Your task to perform on an android device: Open Reddit.com Image 0: 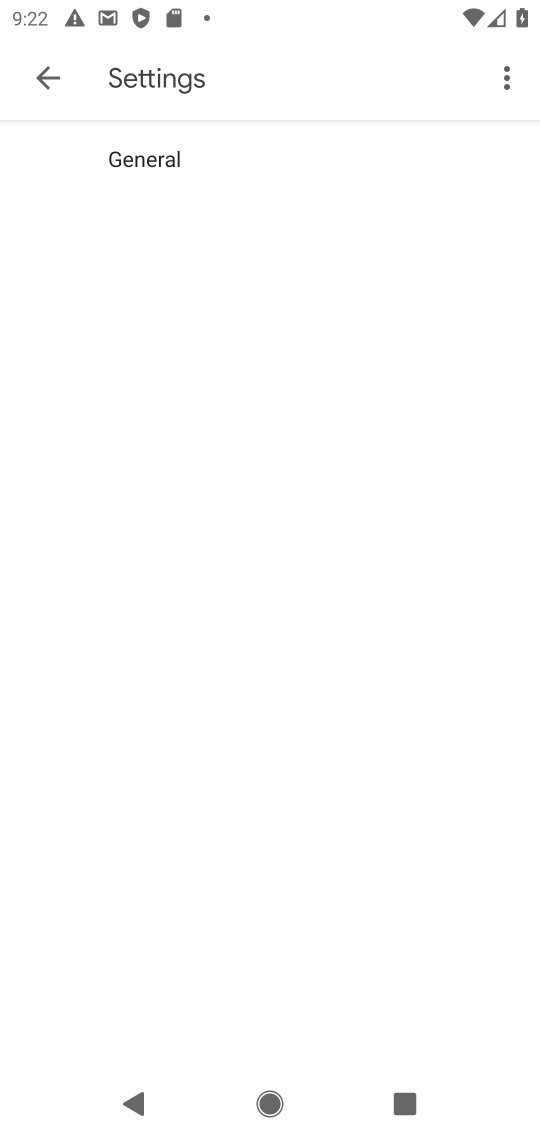
Step 0: press home button
Your task to perform on an android device: Open Reddit.com Image 1: 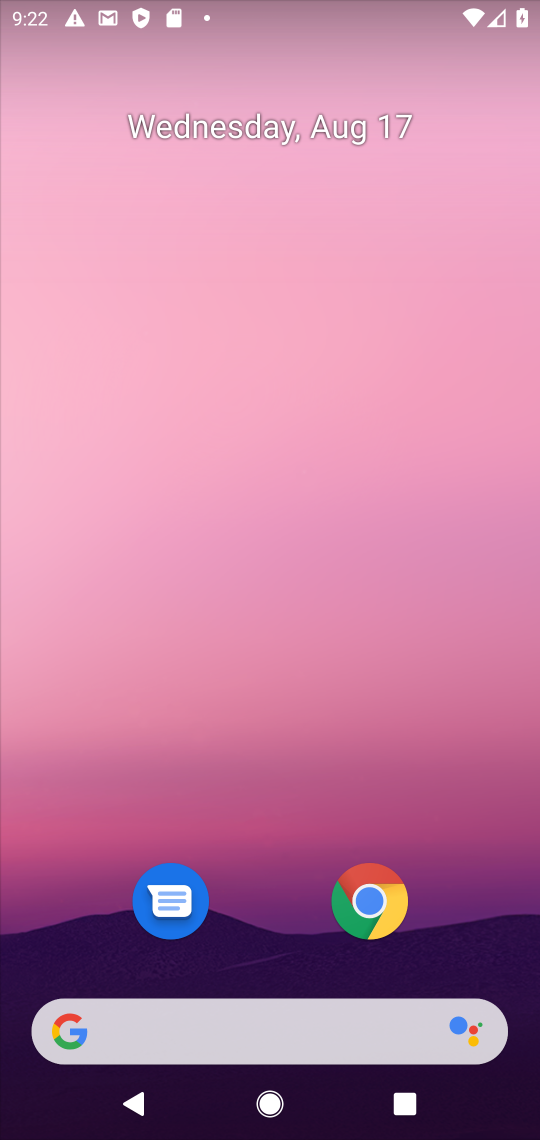
Step 1: drag from (262, 961) to (277, 173)
Your task to perform on an android device: Open Reddit.com Image 2: 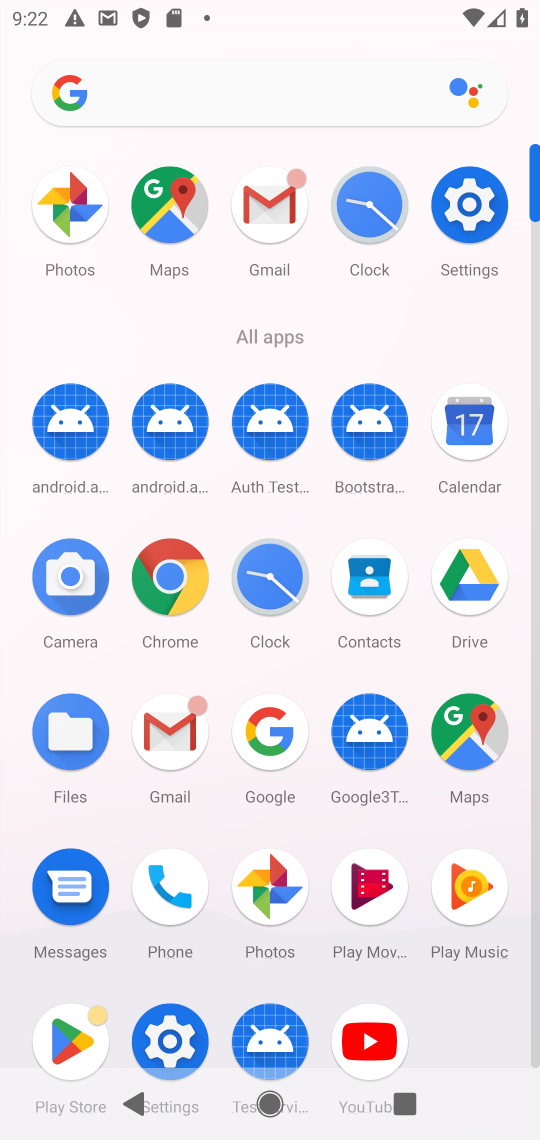
Step 2: click (171, 584)
Your task to perform on an android device: Open Reddit.com Image 3: 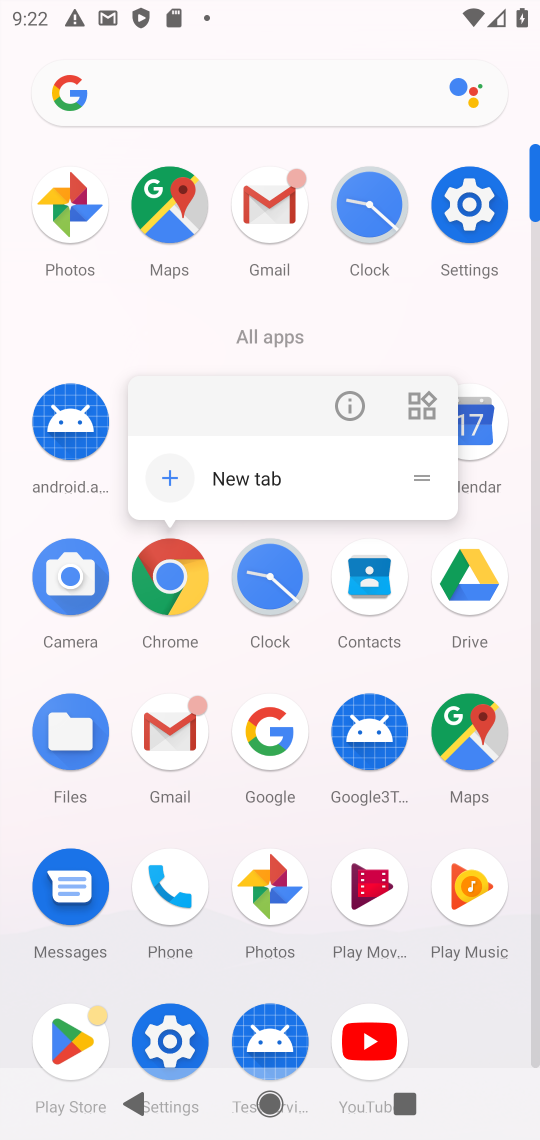
Step 3: click (171, 584)
Your task to perform on an android device: Open Reddit.com Image 4: 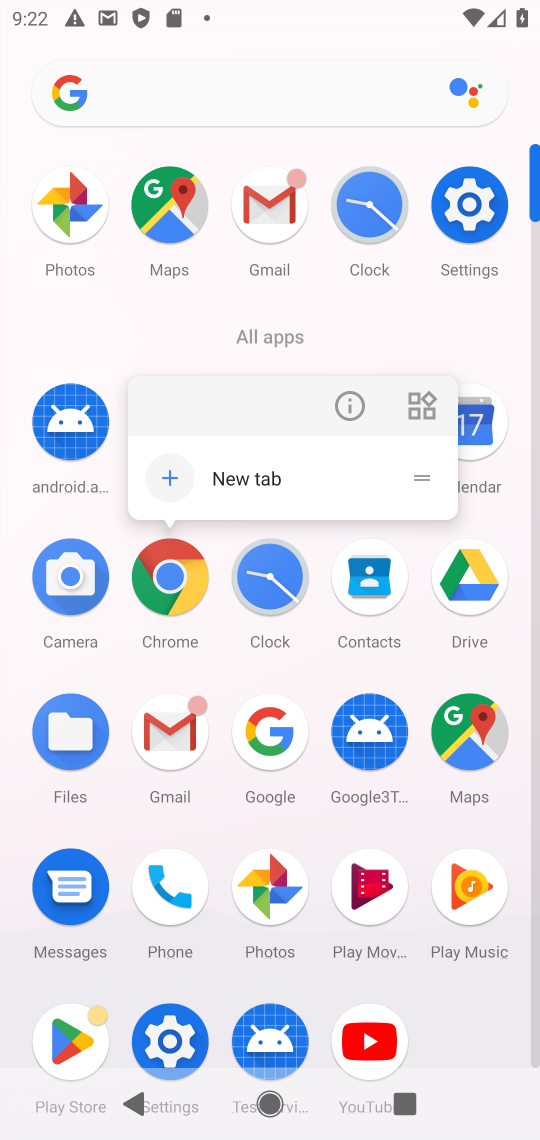
Step 4: click (164, 596)
Your task to perform on an android device: Open Reddit.com Image 5: 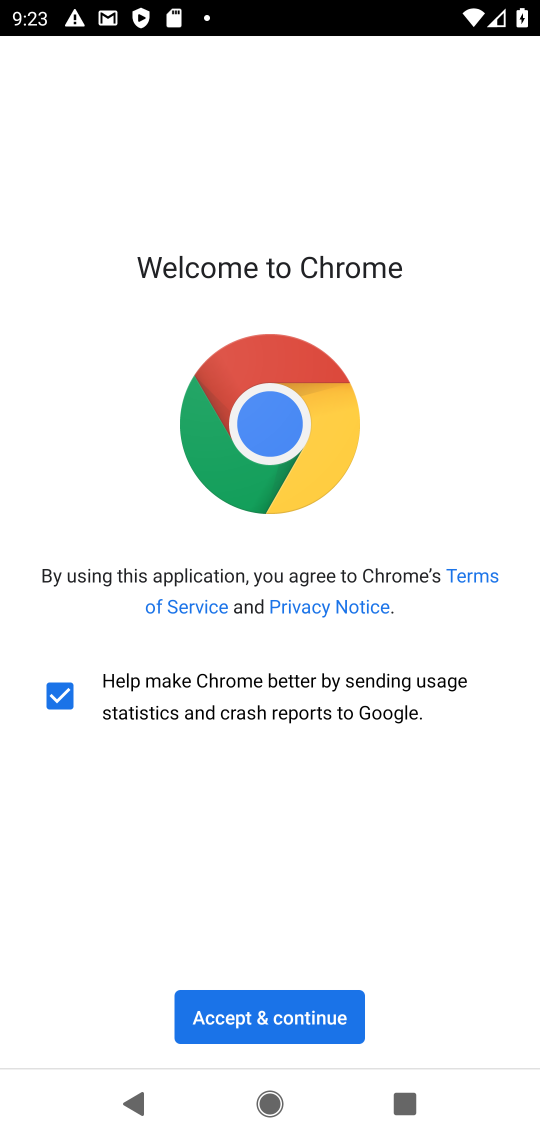
Step 5: click (252, 1021)
Your task to perform on an android device: Open Reddit.com Image 6: 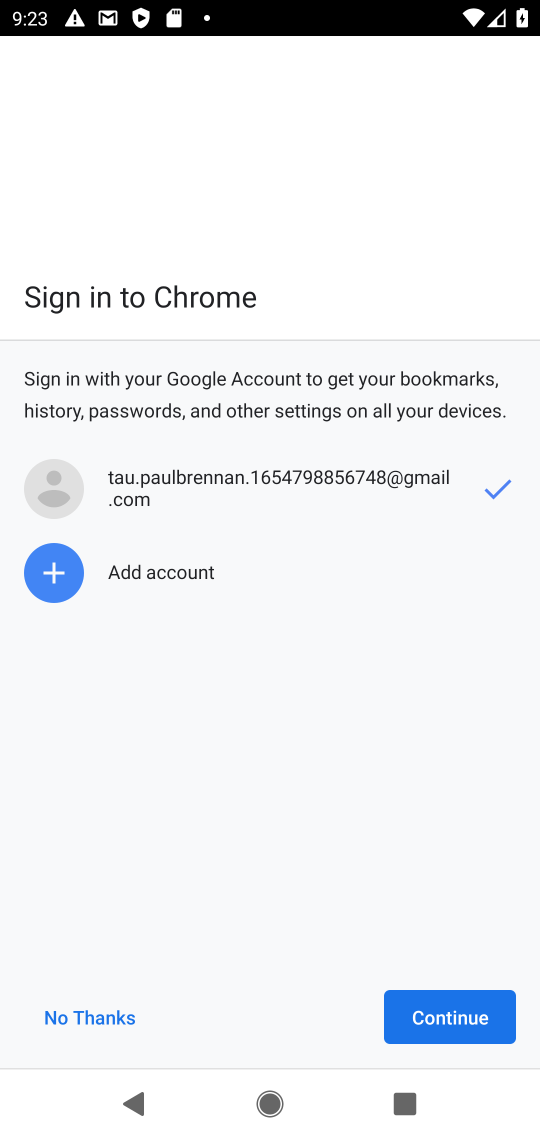
Step 6: click (482, 1023)
Your task to perform on an android device: Open Reddit.com Image 7: 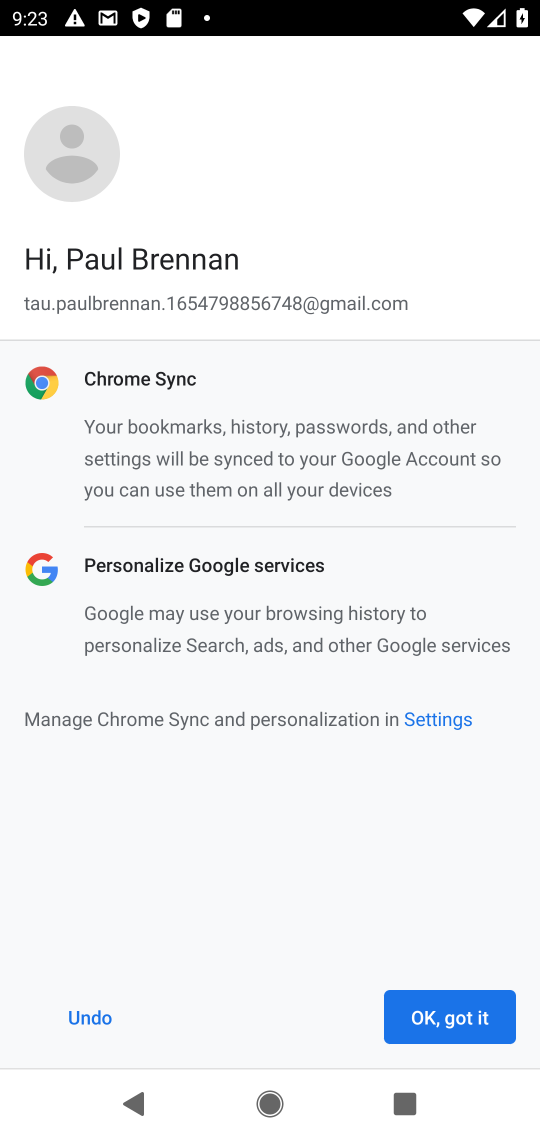
Step 7: click (482, 1023)
Your task to perform on an android device: Open Reddit.com Image 8: 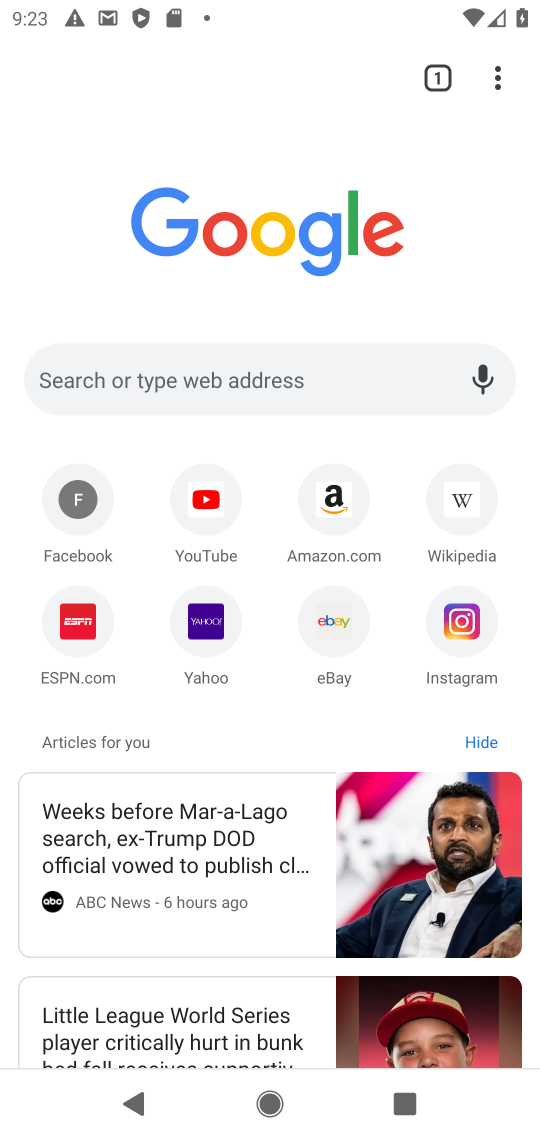
Step 8: click (295, 373)
Your task to perform on an android device: Open Reddit.com Image 9: 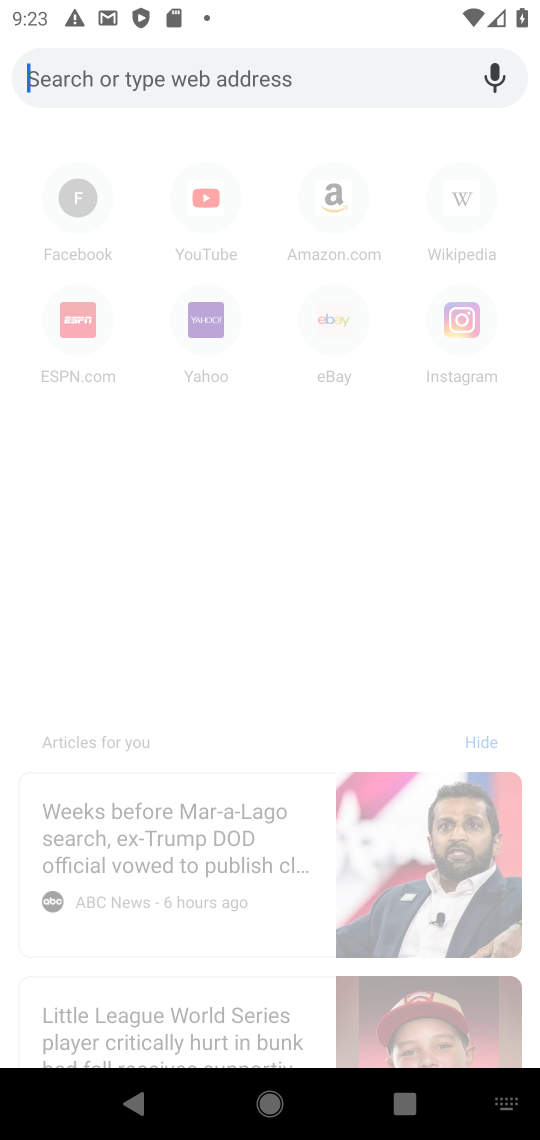
Step 9: type "reddit.com"
Your task to perform on an android device: Open Reddit.com Image 10: 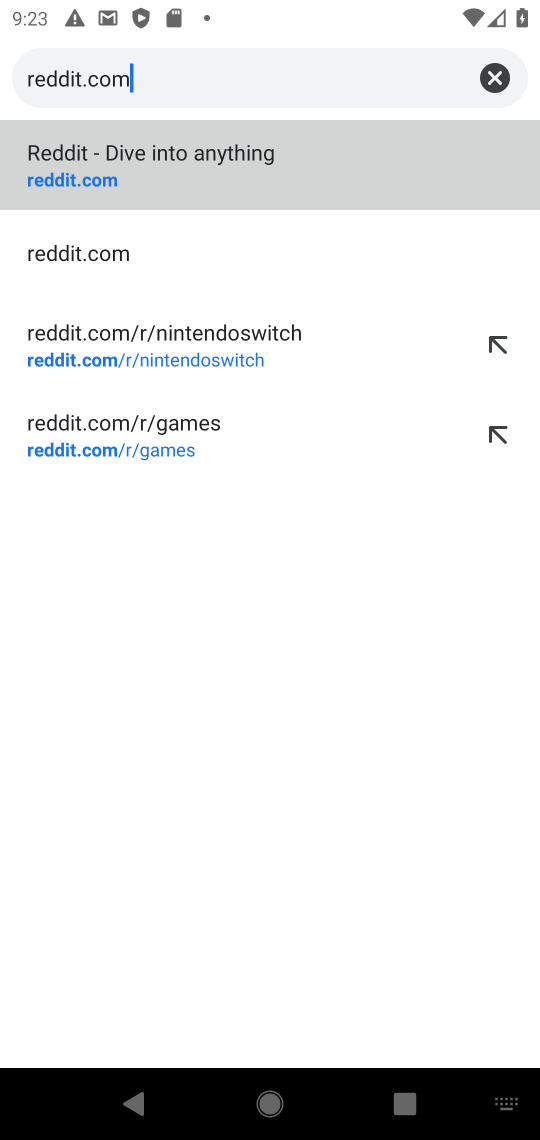
Step 10: click (98, 169)
Your task to perform on an android device: Open Reddit.com Image 11: 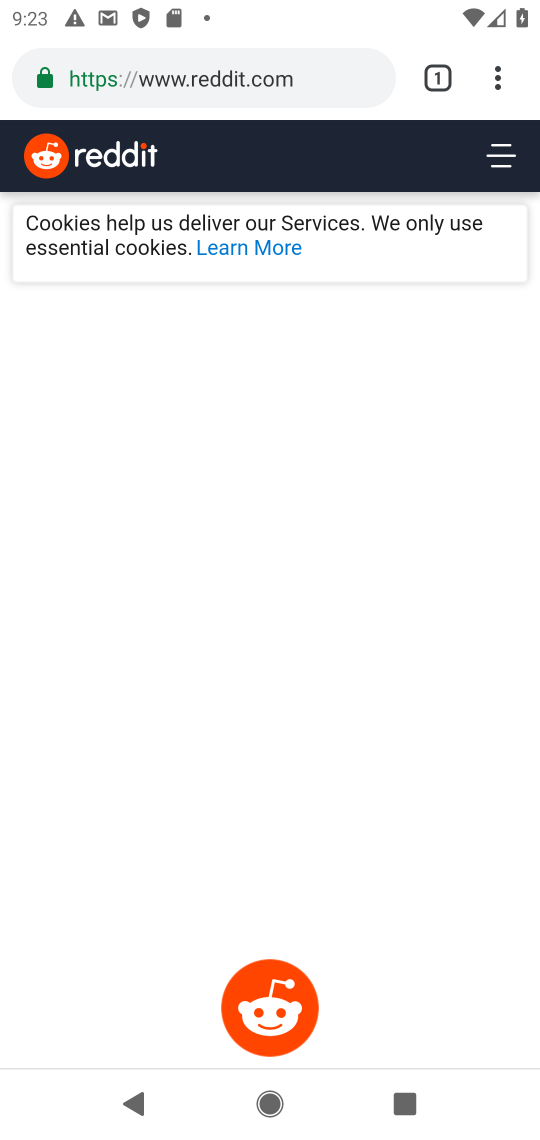
Step 11: task complete